Your task to perform on an android device: add a contact Image 0: 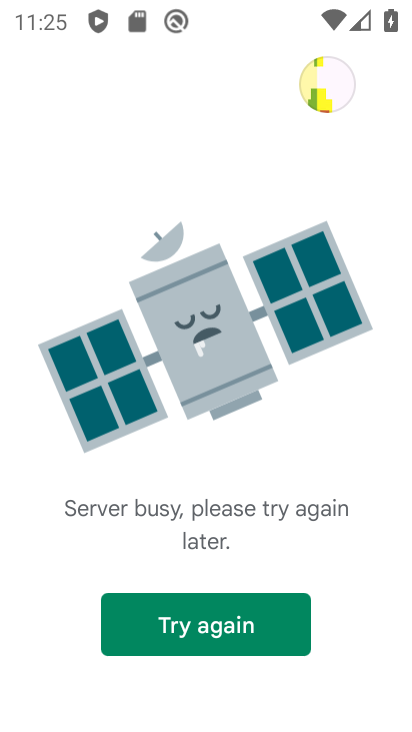
Step 0: press home button
Your task to perform on an android device: add a contact Image 1: 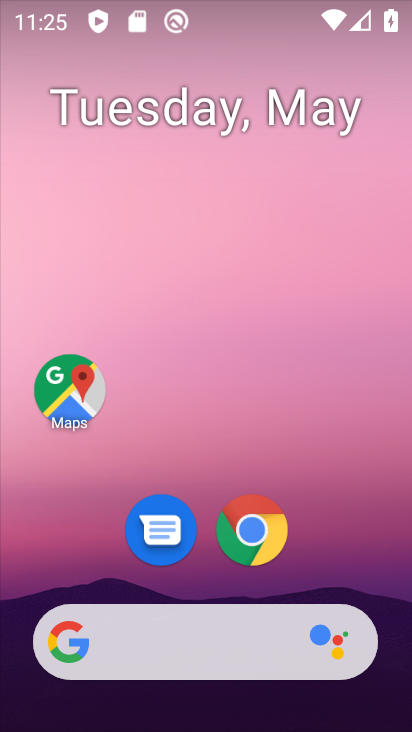
Step 1: drag from (198, 601) to (284, 191)
Your task to perform on an android device: add a contact Image 2: 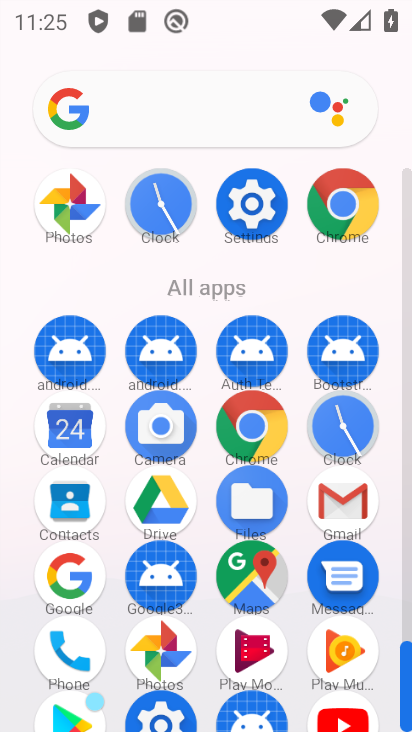
Step 2: click (69, 501)
Your task to perform on an android device: add a contact Image 3: 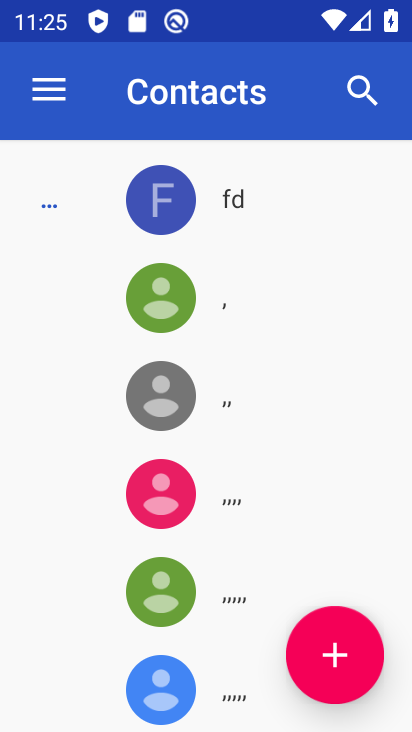
Step 3: click (325, 655)
Your task to perform on an android device: add a contact Image 4: 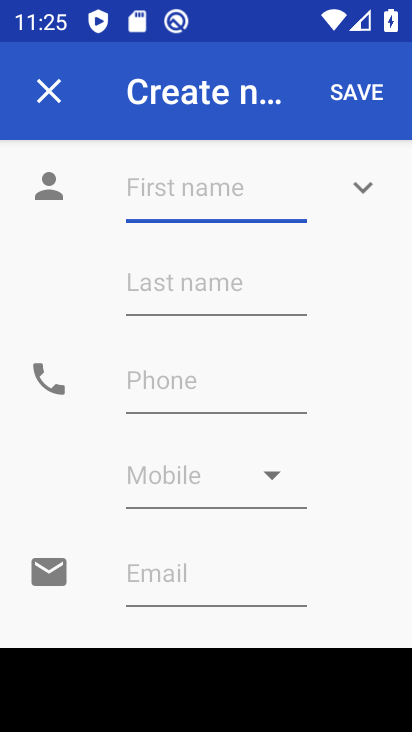
Step 4: type "hjh"
Your task to perform on an android device: add a contact Image 5: 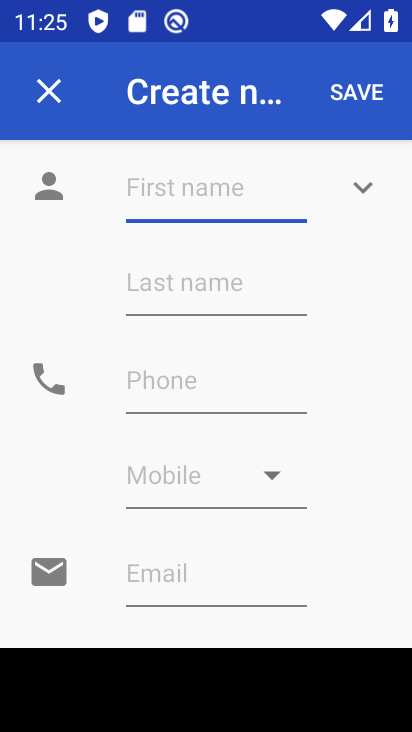
Step 5: click (204, 292)
Your task to perform on an android device: add a contact Image 6: 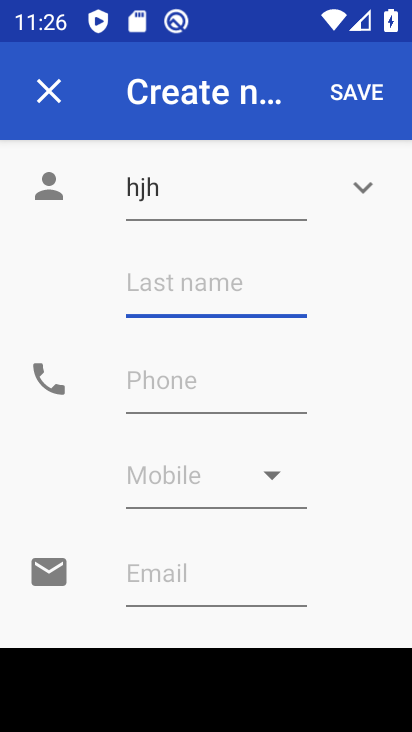
Step 6: type "gghjh"
Your task to perform on an android device: add a contact Image 7: 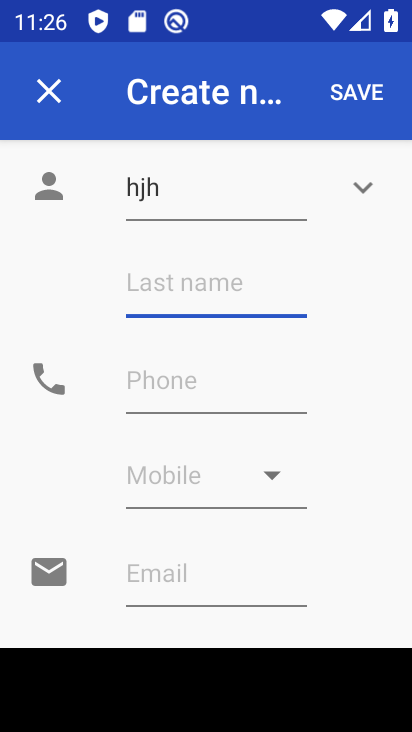
Step 7: click (160, 380)
Your task to perform on an android device: add a contact Image 8: 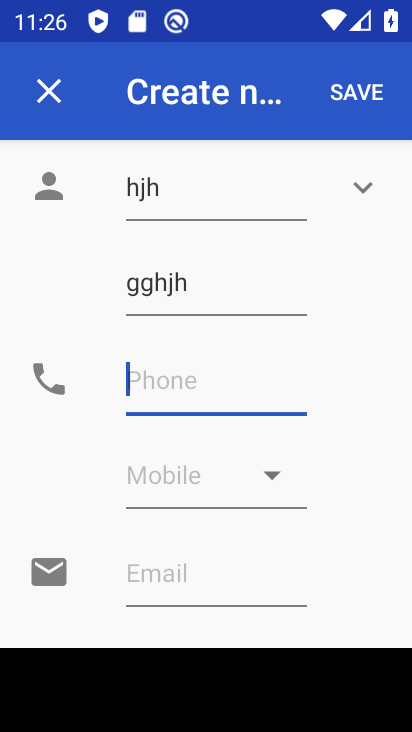
Step 8: type "5757778"
Your task to perform on an android device: add a contact Image 9: 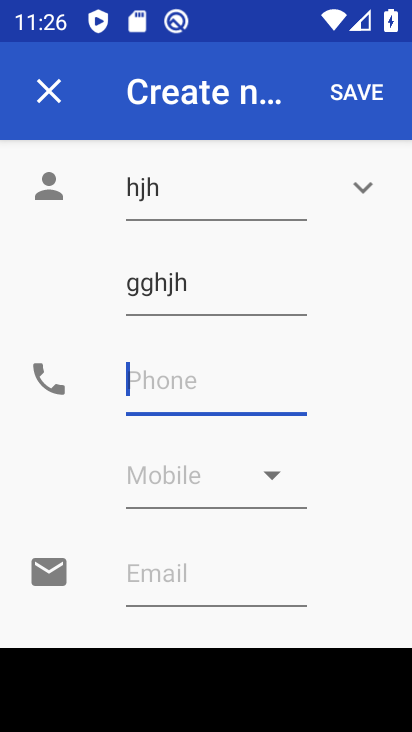
Step 9: click (180, 482)
Your task to perform on an android device: add a contact Image 10: 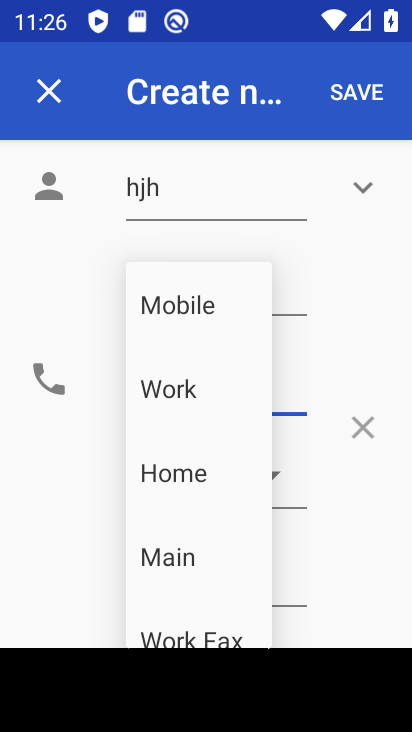
Step 10: click (366, 94)
Your task to perform on an android device: add a contact Image 11: 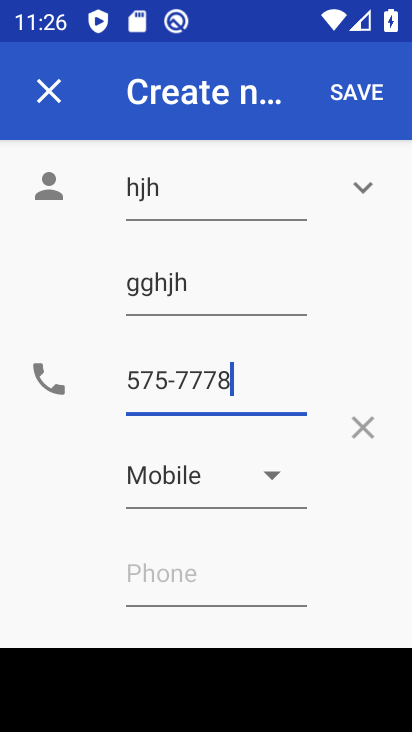
Step 11: click (373, 89)
Your task to perform on an android device: add a contact Image 12: 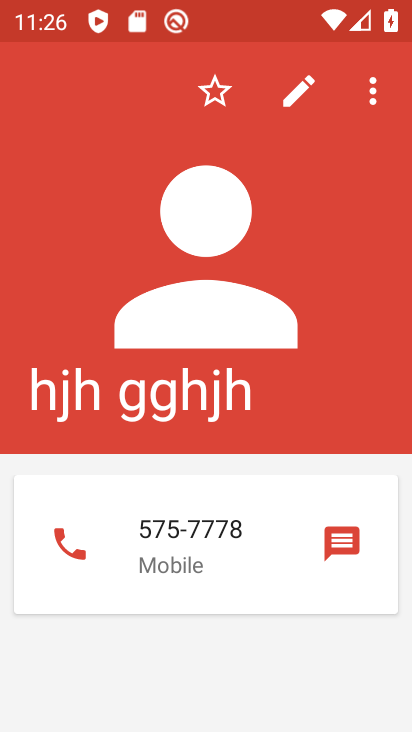
Step 12: task complete